Your task to perform on an android device: Open Google Maps and go to "Timeline" Image 0: 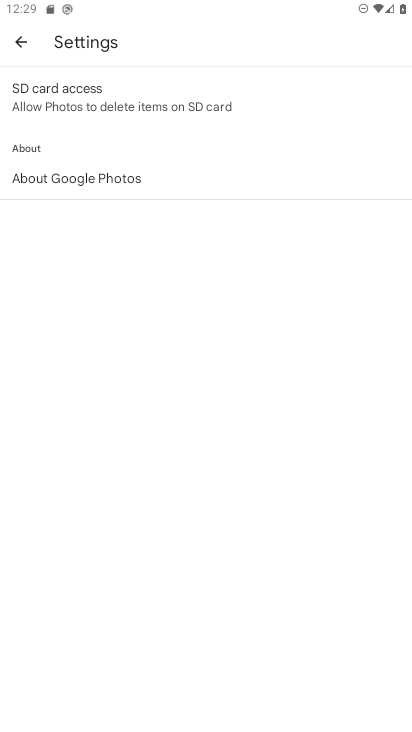
Step 0: press home button
Your task to perform on an android device: Open Google Maps and go to "Timeline" Image 1: 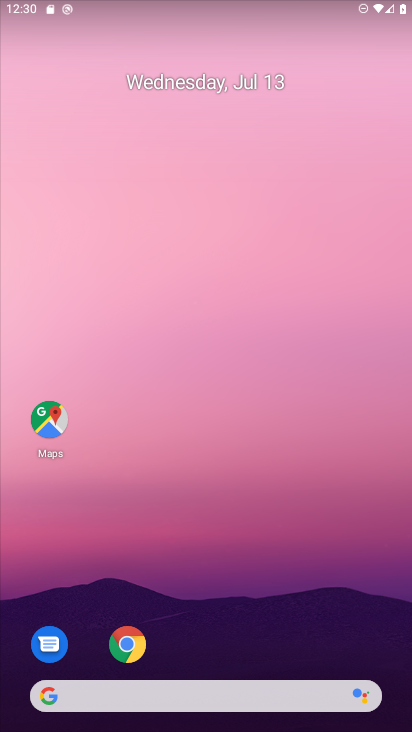
Step 1: click (54, 415)
Your task to perform on an android device: Open Google Maps and go to "Timeline" Image 2: 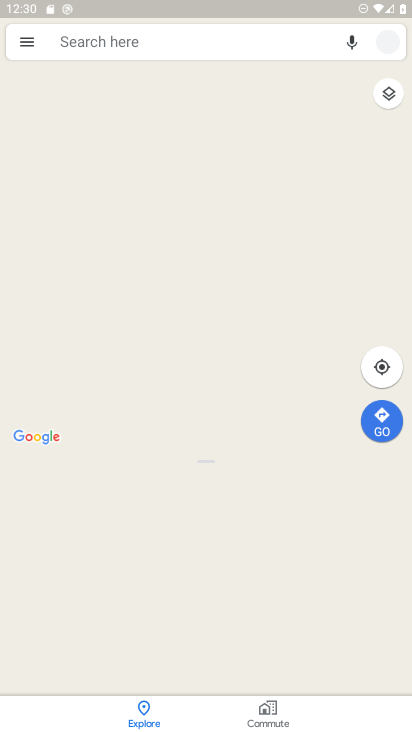
Step 2: click (26, 43)
Your task to perform on an android device: Open Google Maps and go to "Timeline" Image 3: 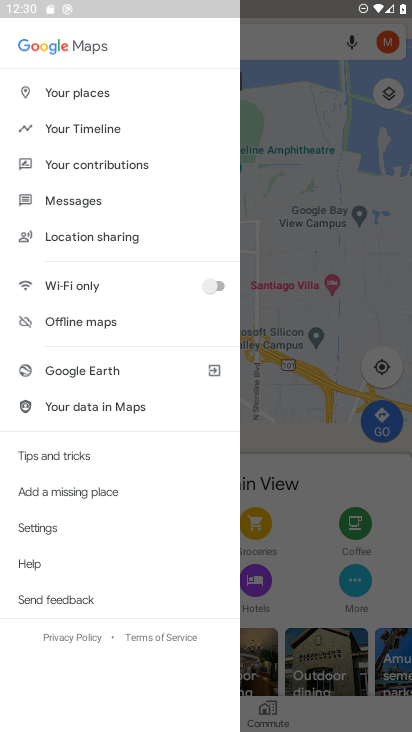
Step 3: click (90, 128)
Your task to perform on an android device: Open Google Maps and go to "Timeline" Image 4: 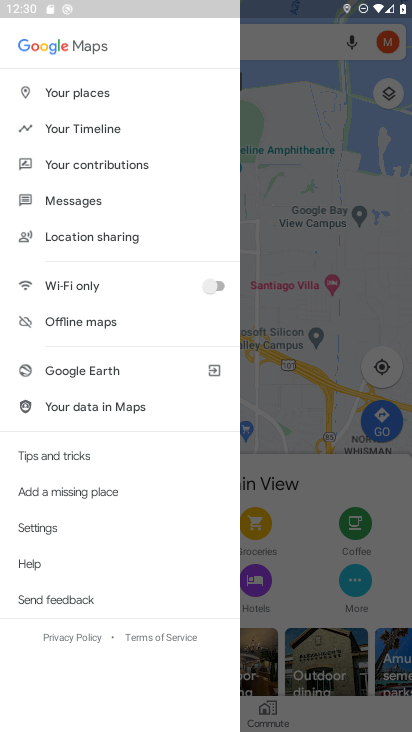
Step 4: click (90, 128)
Your task to perform on an android device: Open Google Maps and go to "Timeline" Image 5: 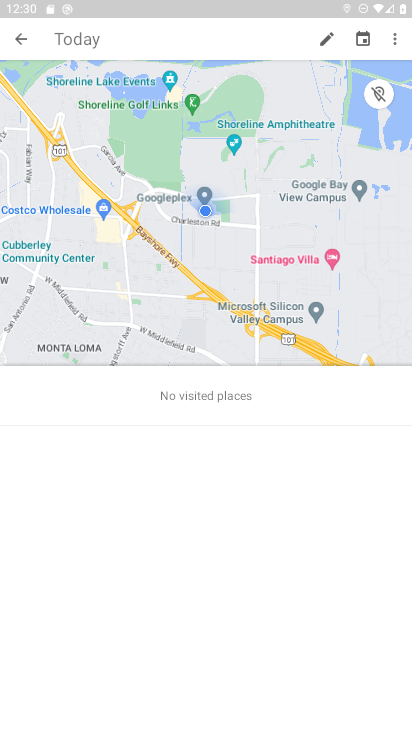
Step 5: task complete